Your task to perform on an android device: check the backup settings in the google photos Image 0: 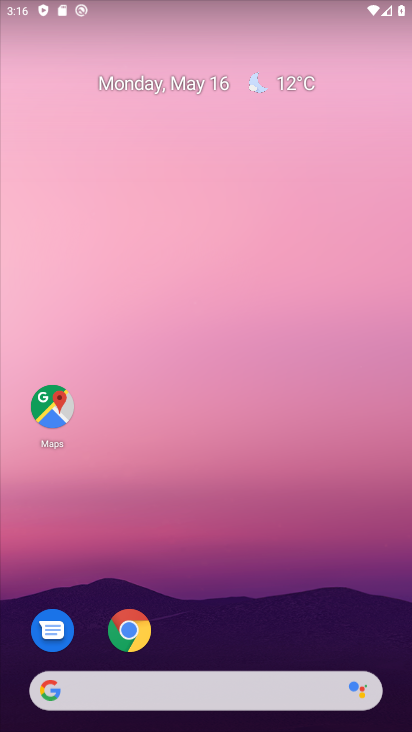
Step 0: drag from (183, 650) to (275, 198)
Your task to perform on an android device: check the backup settings in the google photos Image 1: 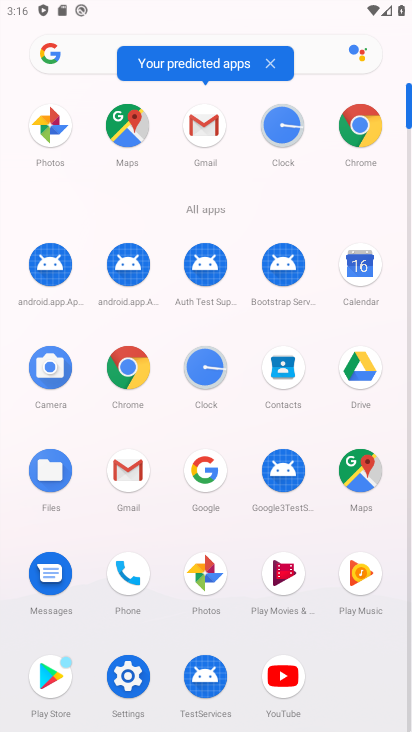
Step 1: click (202, 575)
Your task to perform on an android device: check the backup settings in the google photos Image 2: 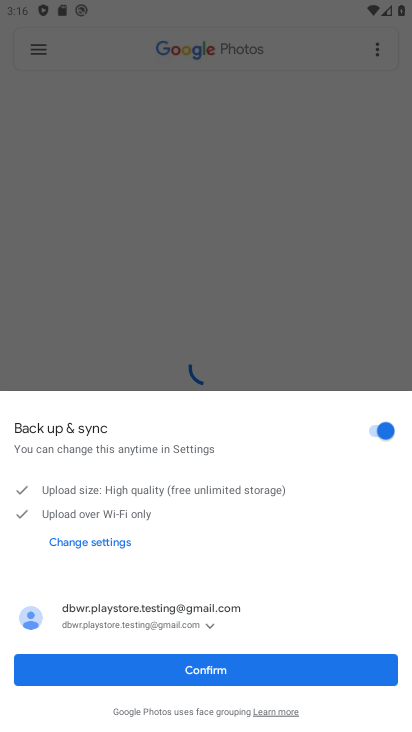
Step 2: click (234, 678)
Your task to perform on an android device: check the backup settings in the google photos Image 3: 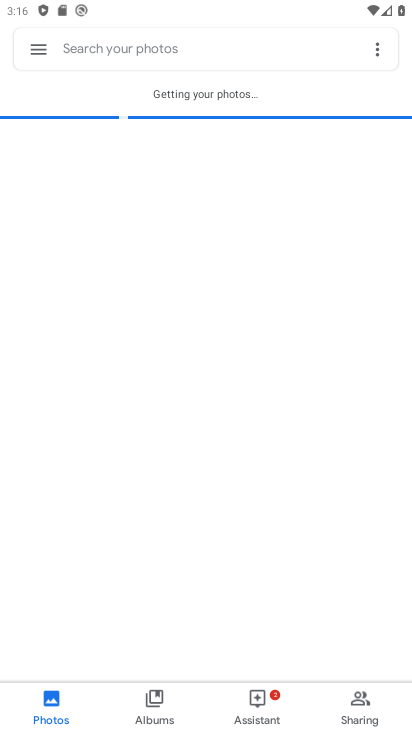
Step 3: click (37, 39)
Your task to perform on an android device: check the backup settings in the google photos Image 4: 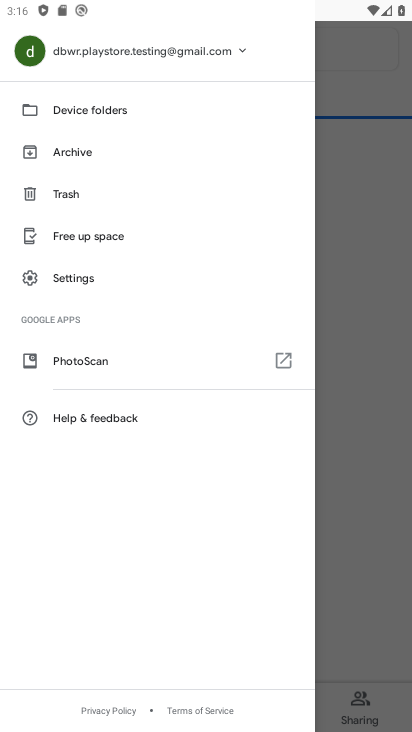
Step 4: click (108, 293)
Your task to perform on an android device: check the backup settings in the google photos Image 5: 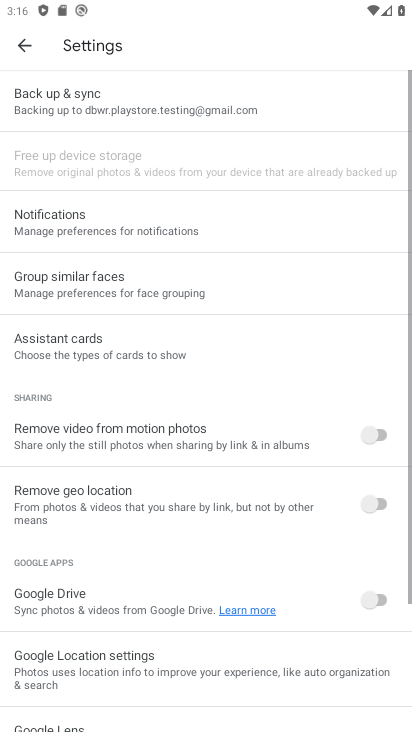
Step 5: click (187, 93)
Your task to perform on an android device: check the backup settings in the google photos Image 6: 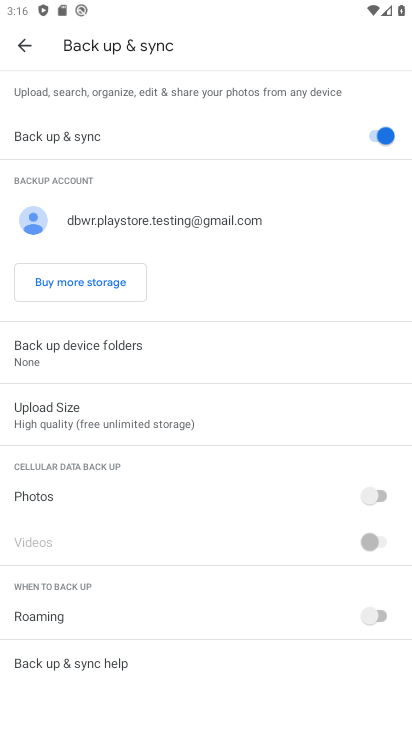
Step 6: task complete